Your task to perform on an android device: read, delete, or share a saved page in the chrome app Image 0: 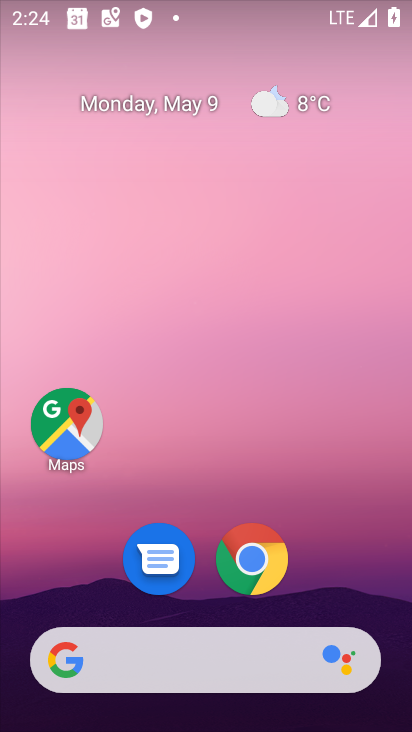
Step 0: click (252, 557)
Your task to perform on an android device: read, delete, or share a saved page in the chrome app Image 1: 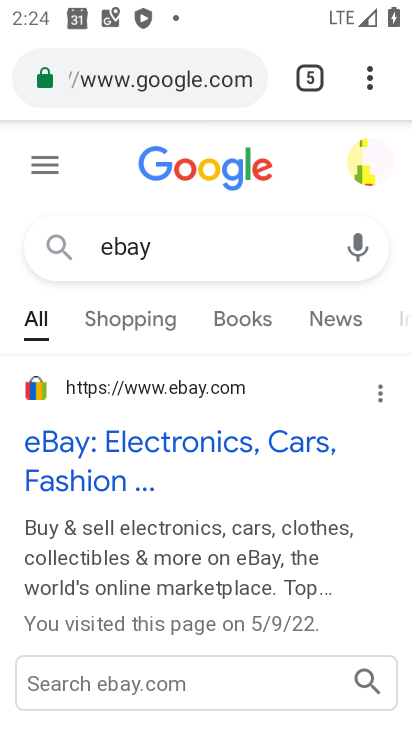
Step 1: click (368, 71)
Your task to perform on an android device: read, delete, or share a saved page in the chrome app Image 2: 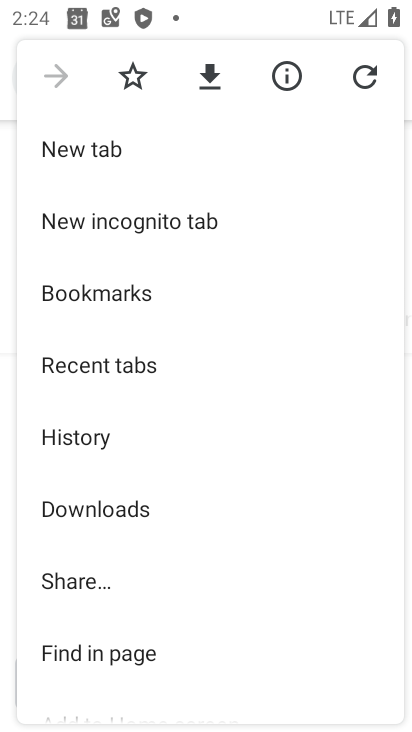
Step 2: click (88, 499)
Your task to perform on an android device: read, delete, or share a saved page in the chrome app Image 3: 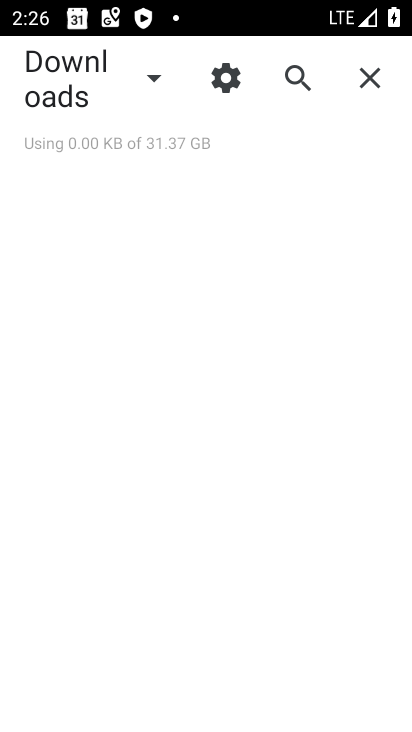
Step 3: task complete